Your task to perform on an android device: change the upload size in google photos Image 0: 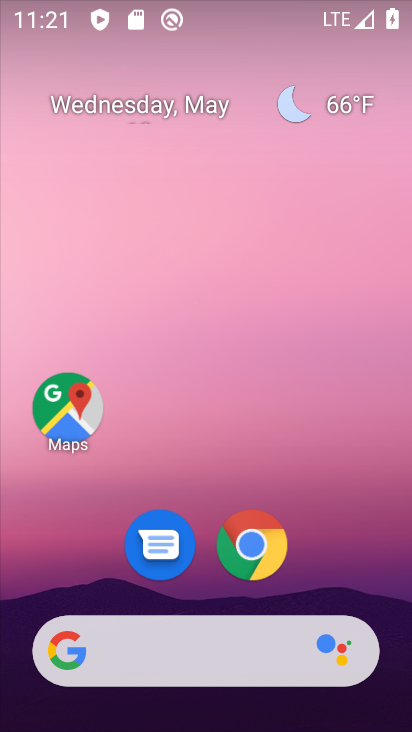
Step 0: drag from (232, 679) to (310, 2)
Your task to perform on an android device: change the upload size in google photos Image 1: 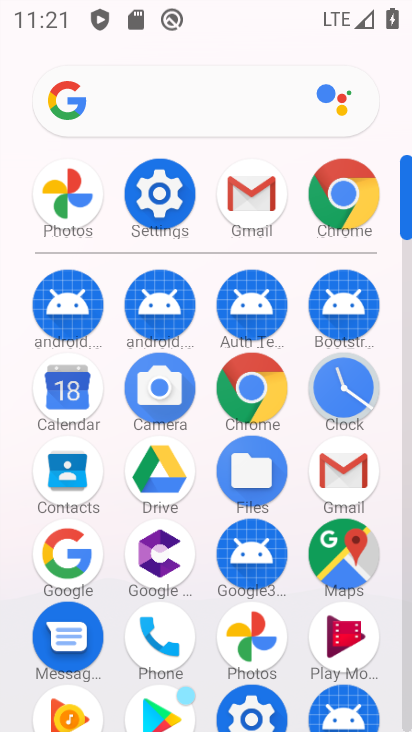
Step 1: click (61, 184)
Your task to perform on an android device: change the upload size in google photos Image 2: 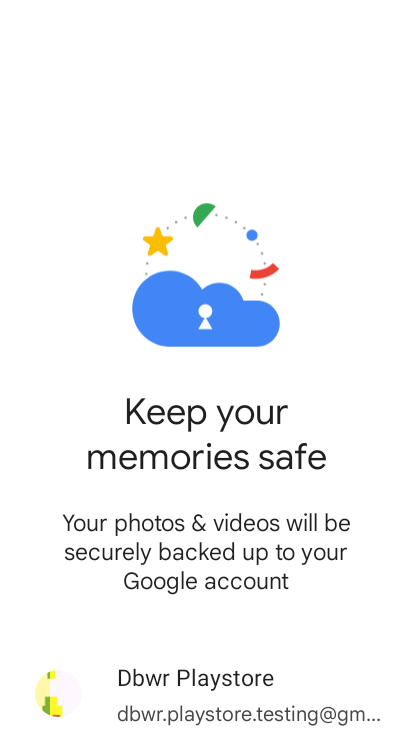
Step 2: drag from (224, 470) to (172, 129)
Your task to perform on an android device: change the upload size in google photos Image 3: 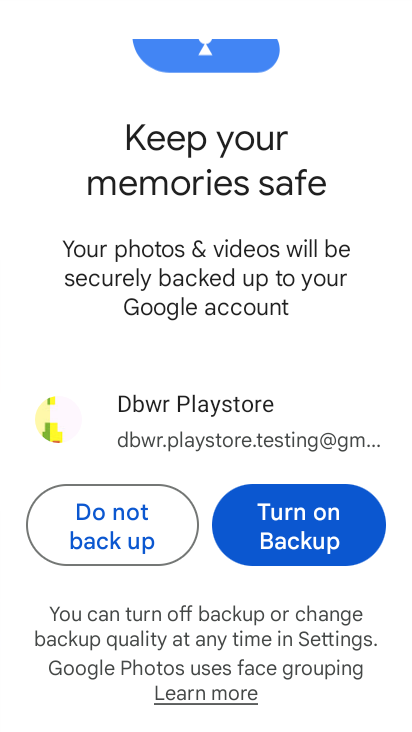
Step 3: press back button
Your task to perform on an android device: change the upload size in google photos Image 4: 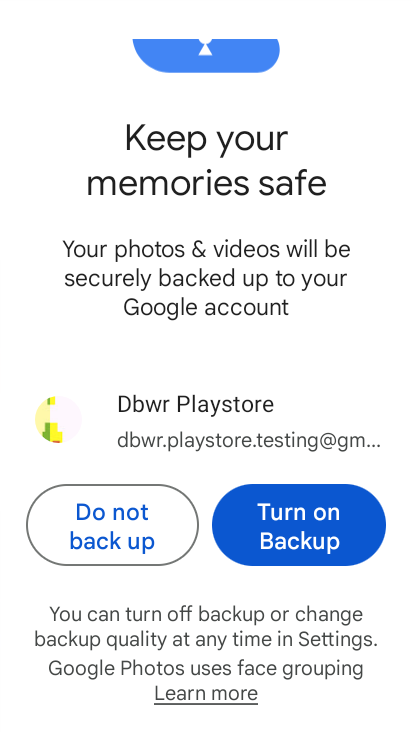
Step 4: drag from (317, 220) to (250, 601)
Your task to perform on an android device: change the upload size in google photos Image 5: 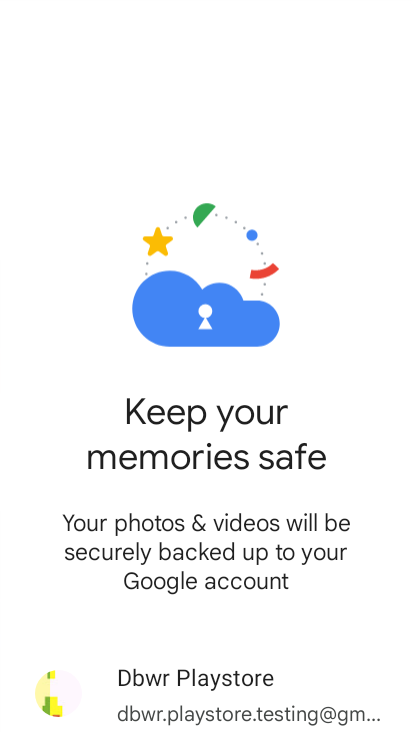
Step 5: press back button
Your task to perform on an android device: change the upload size in google photos Image 6: 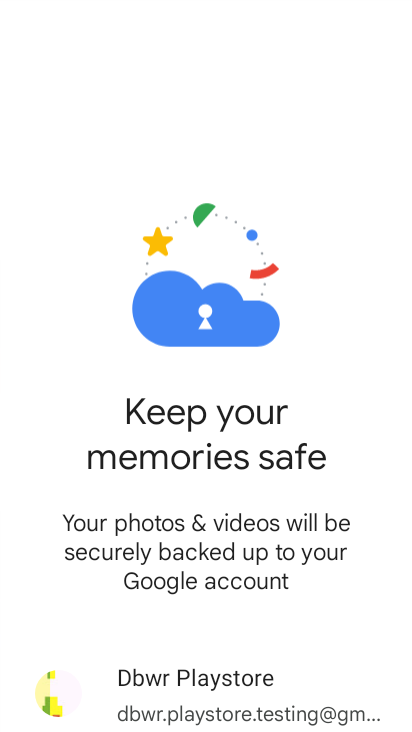
Step 6: drag from (205, 690) to (244, 202)
Your task to perform on an android device: change the upload size in google photos Image 7: 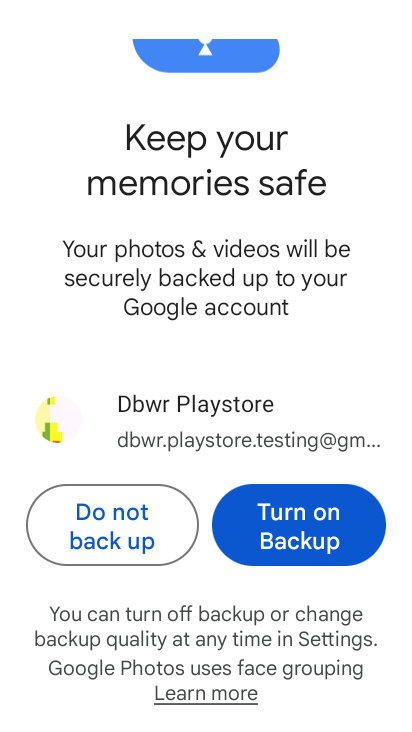
Step 7: click (273, 546)
Your task to perform on an android device: change the upload size in google photos Image 8: 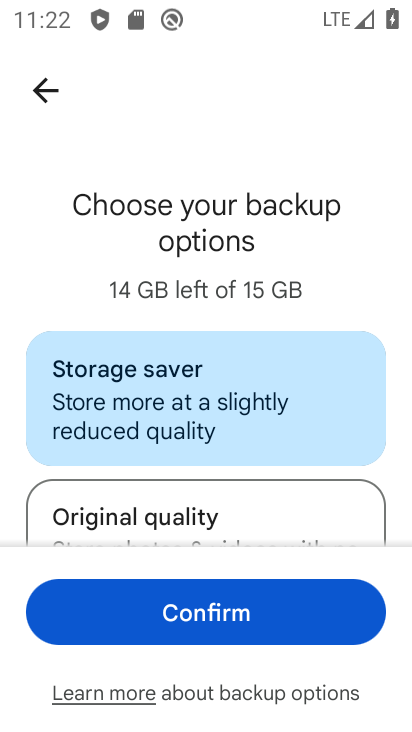
Step 8: click (235, 506)
Your task to perform on an android device: change the upload size in google photos Image 9: 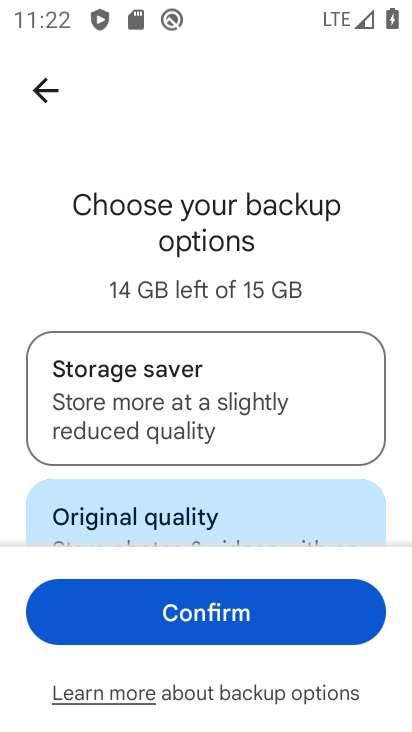
Step 9: click (227, 624)
Your task to perform on an android device: change the upload size in google photos Image 10: 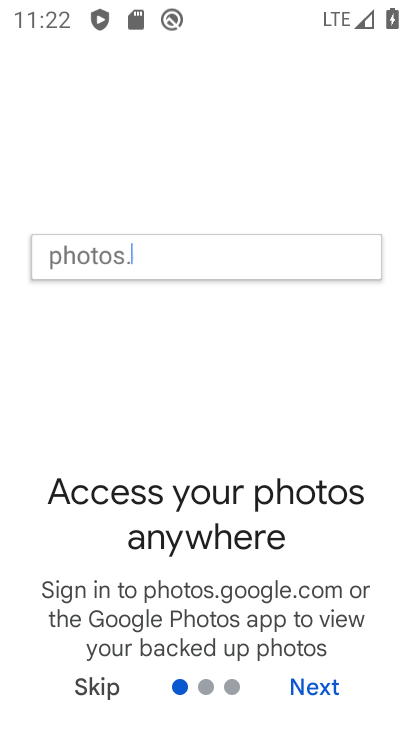
Step 10: task complete